Your task to perform on an android device: turn on the 24-hour format for clock Image 0: 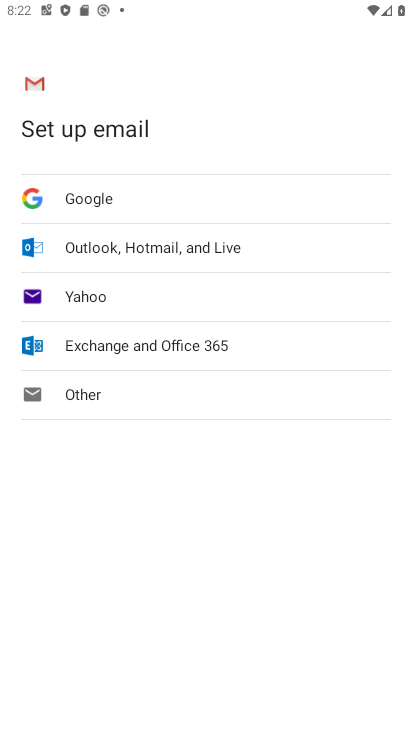
Step 0: press home button
Your task to perform on an android device: turn on the 24-hour format for clock Image 1: 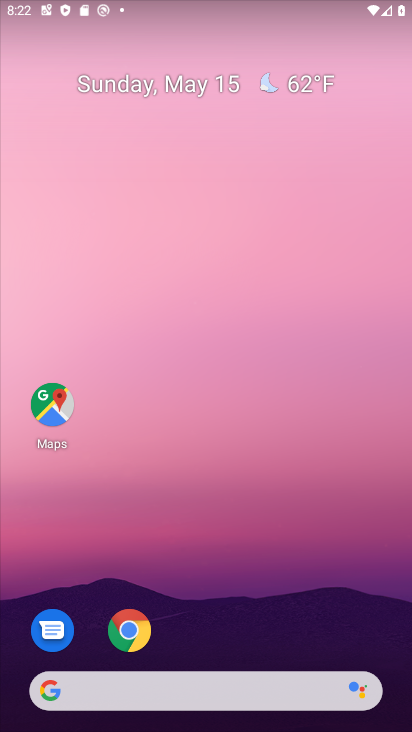
Step 1: drag from (199, 665) to (303, 107)
Your task to perform on an android device: turn on the 24-hour format for clock Image 2: 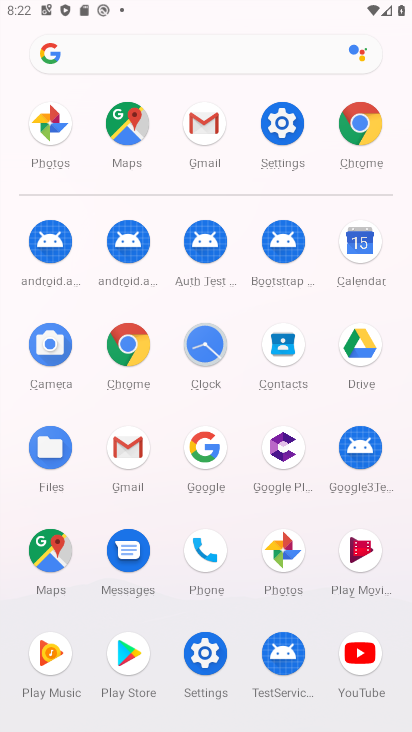
Step 2: click (208, 365)
Your task to perform on an android device: turn on the 24-hour format for clock Image 3: 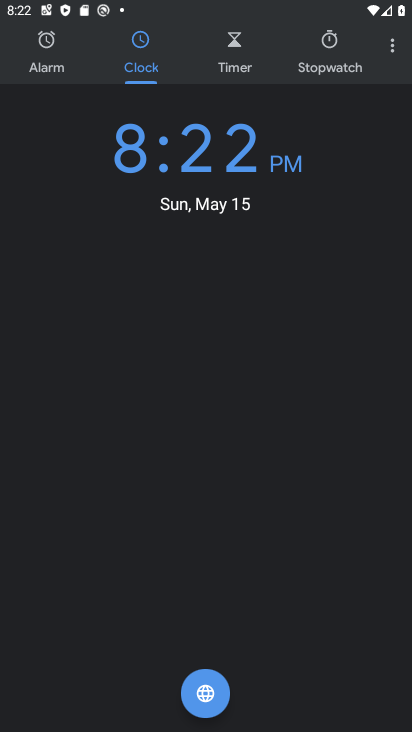
Step 3: click (392, 52)
Your task to perform on an android device: turn on the 24-hour format for clock Image 4: 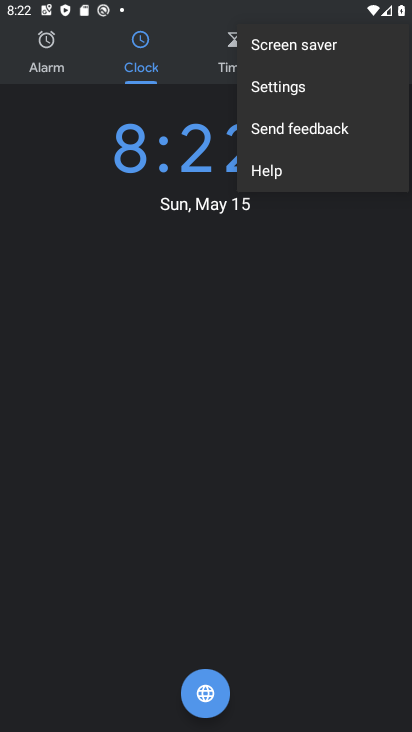
Step 4: click (291, 89)
Your task to perform on an android device: turn on the 24-hour format for clock Image 5: 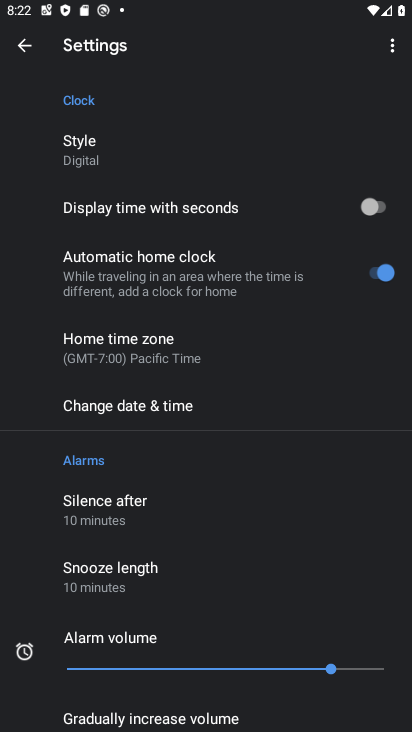
Step 5: press home button
Your task to perform on an android device: turn on the 24-hour format for clock Image 6: 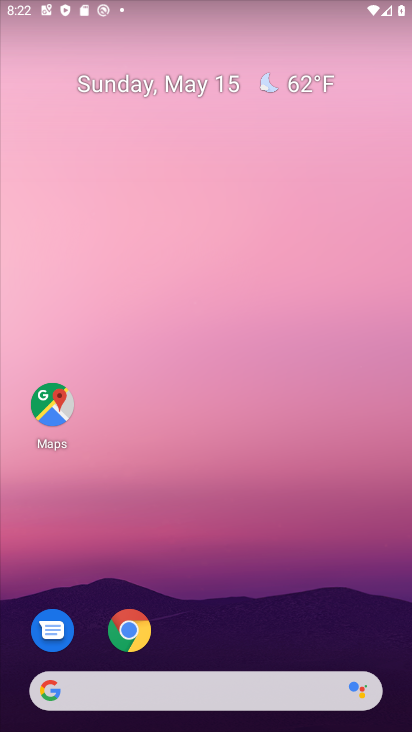
Step 6: drag from (208, 587) to (295, 20)
Your task to perform on an android device: turn on the 24-hour format for clock Image 7: 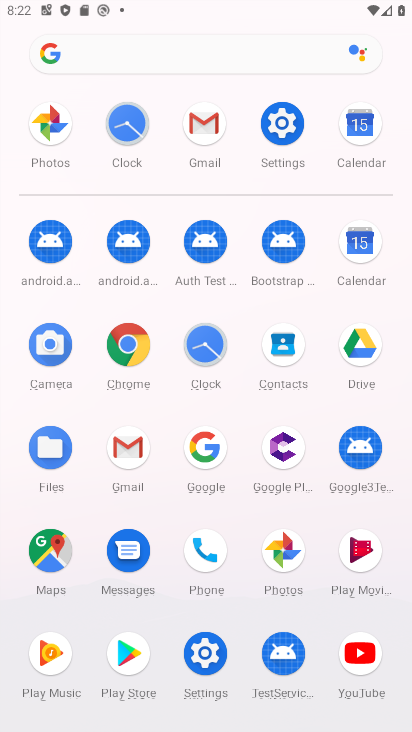
Step 7: click (274, 136)
Your task to perform on an android device: turn on the 24-hour format for clock Image 8: 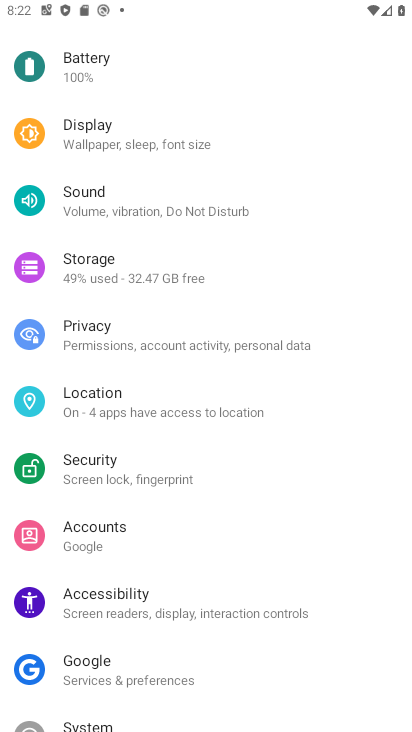
Step 8: drag from (180, 618) to (194, 455)
Your task to perform on an android device: turn on the 24-hour format for clock Image 9: 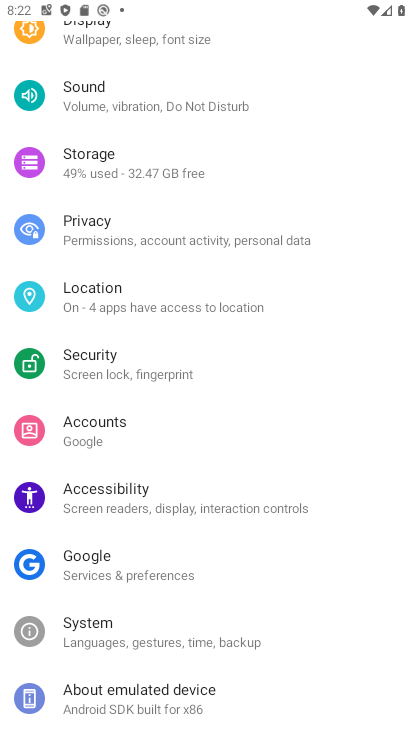
Step 9: click (135, 645)
Your task to perform on an android device: turn on the 24-hour format for clock Image 10: 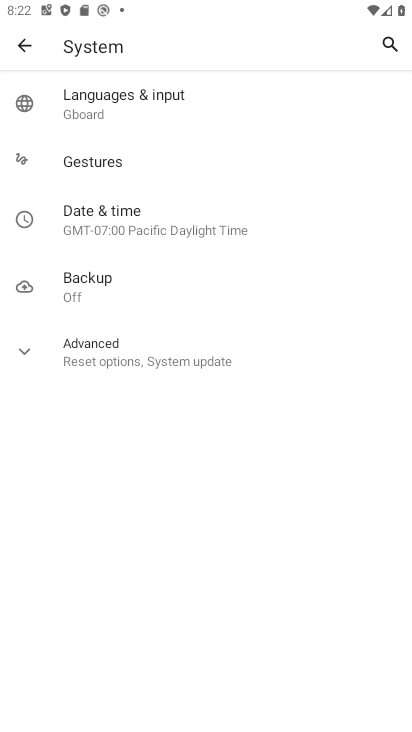
Step 10: click (114, 225)
Your task to perform on an android device: turn on the 24-hour format for clock Image 11: 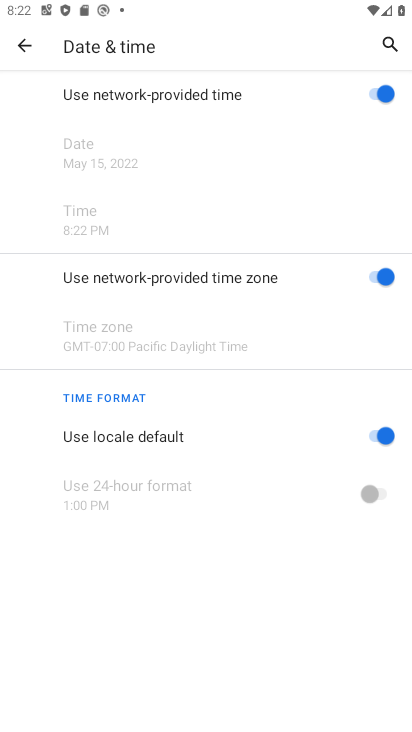
Step 11: click (380, 491)
Your task to perform on an android device: turn on the 24-hour format for clock Image 12: 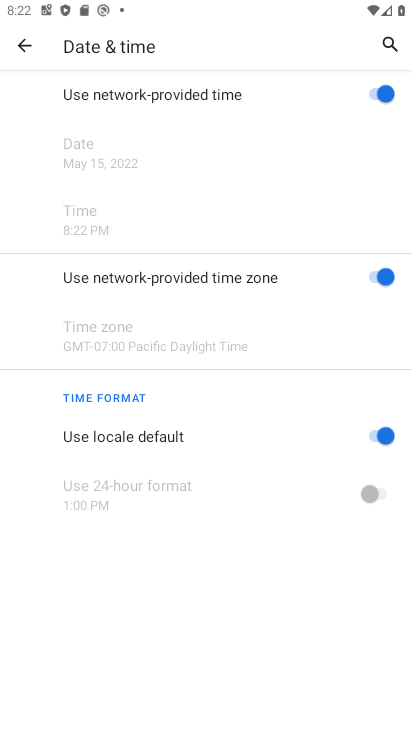
Step 12: click (368, 436)
Your task to perform on an android device: turn on the 24-hour format for clock Image 13: 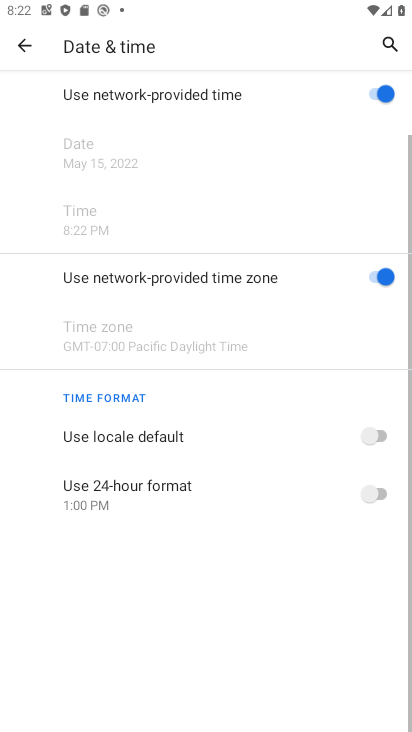
Step 13: click (383, 491)
Your task to perform on an android device: turn on the 24-hour format for clock Image 14: 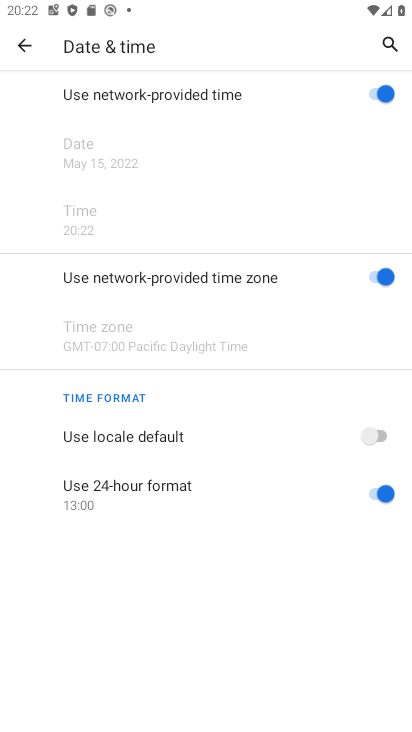
Step 14: task complete